Your task to perform on an android device: toggle javascript in the chrome app Image 0: 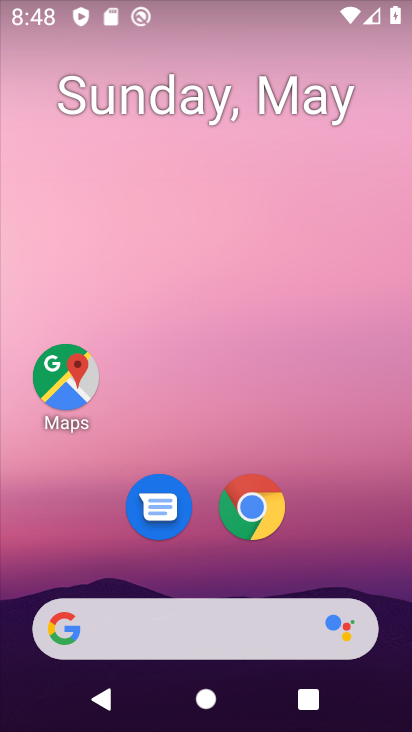
Step 0: click (292, 514)
Your task to perform on an android device: toggle javascript in the chrome app Image 1: 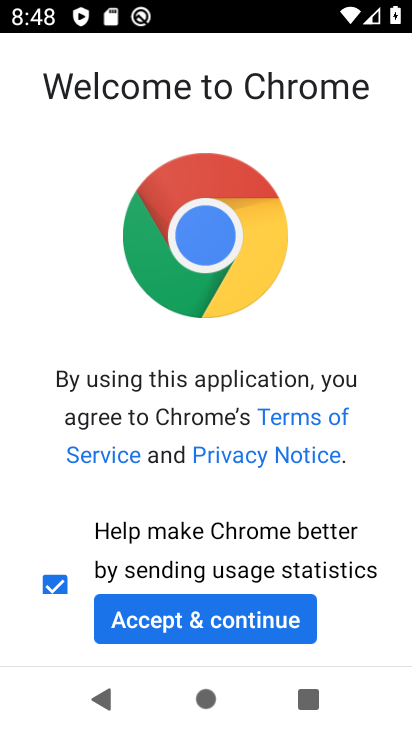
Step 1: click (229, 630)
Your task to perform on an android device: toggle javascript in the chrome app Image 2: 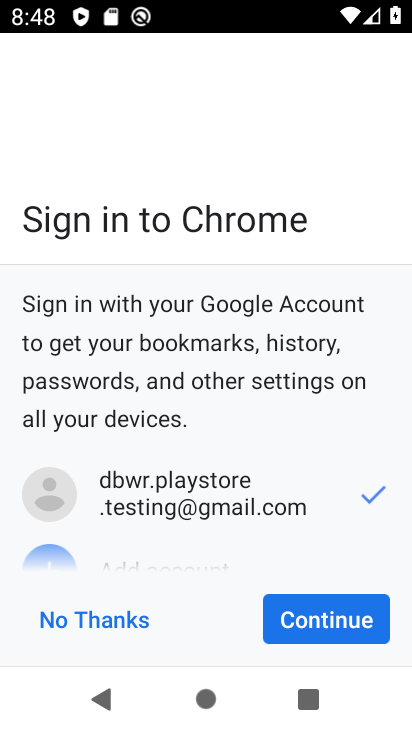
Step 2: click (329, 621)
Your task to perform on an android device: toggle javascript in the chrome app Image 3: 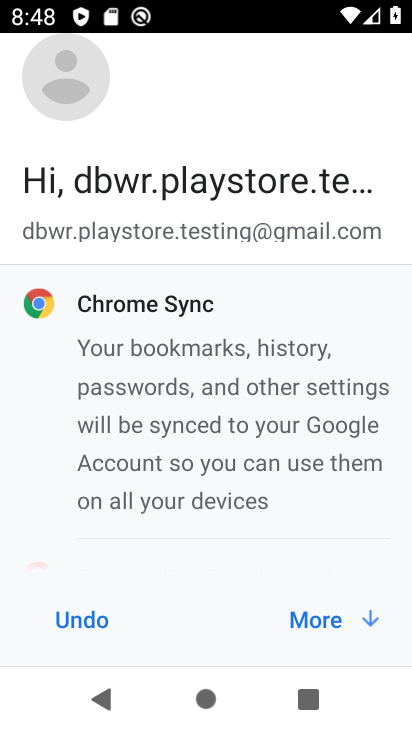
Step 3: click (331, 620)
Your task to perform on an android device: toggle javascript in the chrome app Image 4: 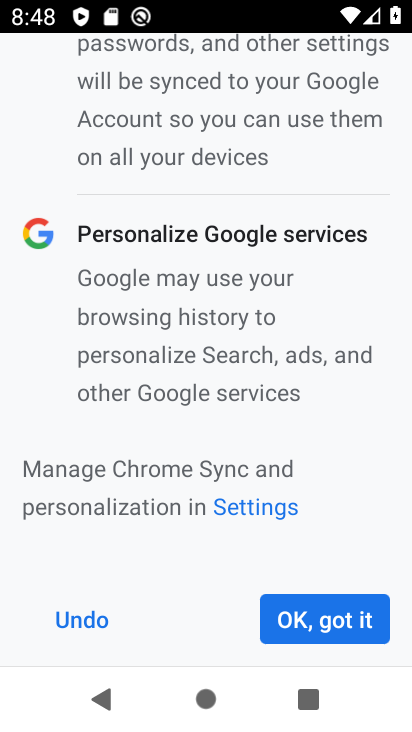
Step 4: click (331, 620)
Your task to perform on an android device: toggle javascript in the chrome app Image 5: 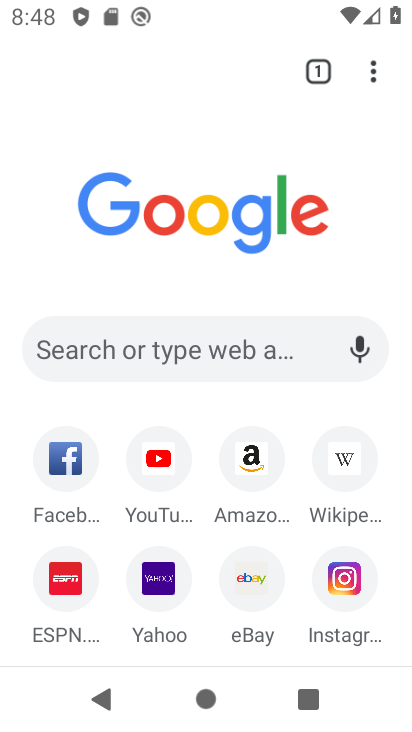
Step 5: click (377, 73)
Your task to perform on an android device: toggle javascript in the chrome app Image 6: 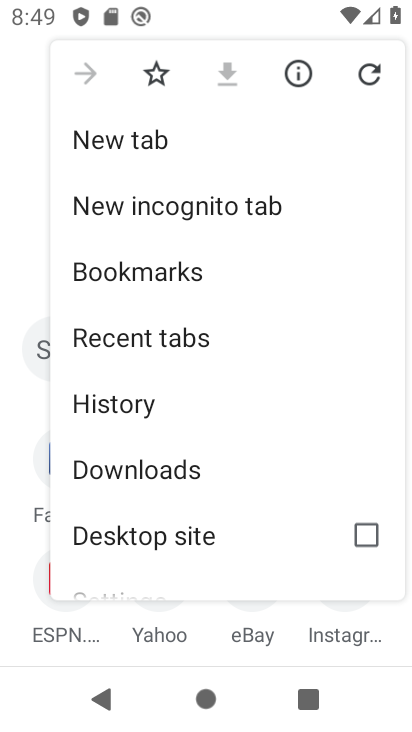
Step 6: drag from (175, 537) to (203, 153)
Your task to perform on an android device: toggle javascript in the chrome app Image 7: 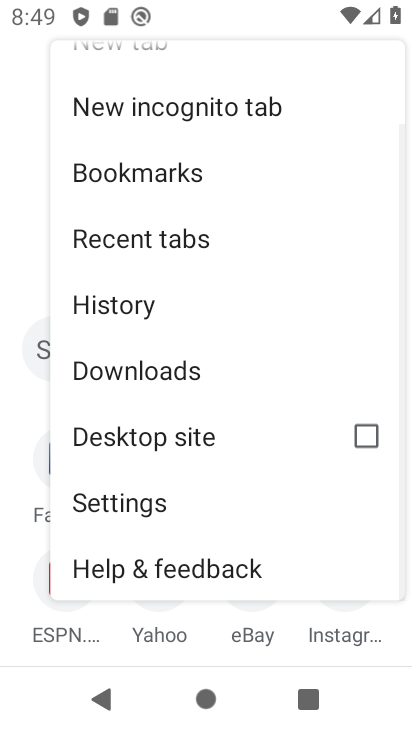
Step 7: click (139, 516)
Your task to perform on an android device: toggle javascript in the chrome app Image 8: 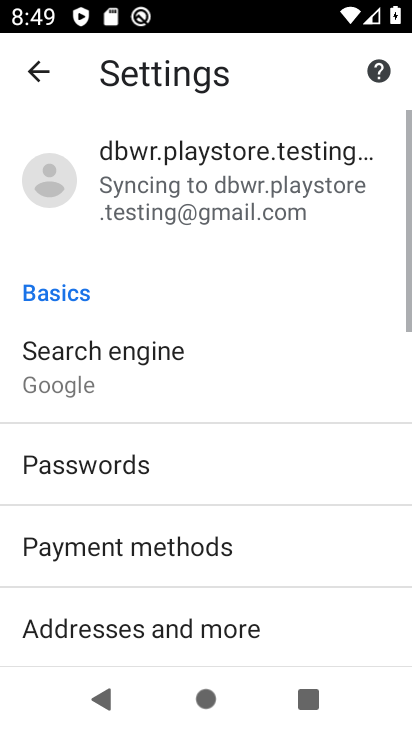
Step 8: drag from (136, 560) to (188, 153)
Your task to perform on an android device: toggle javascript in the chrome app Image 9: 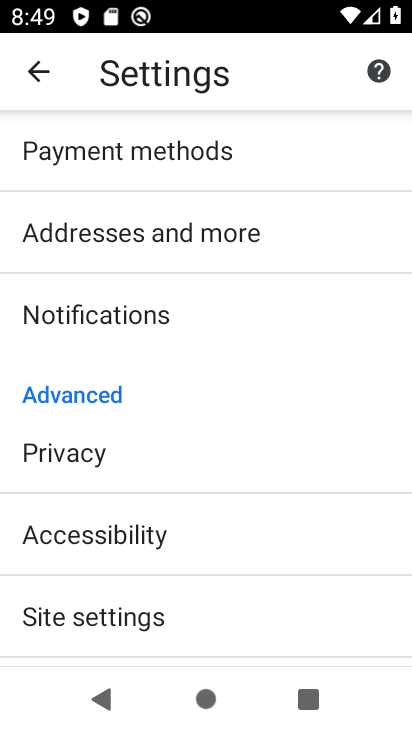
Step 9: drag from (142, 554) to (178, 229)
Your task to perform on an android device: toggle javascript in the chrome app Image 10: 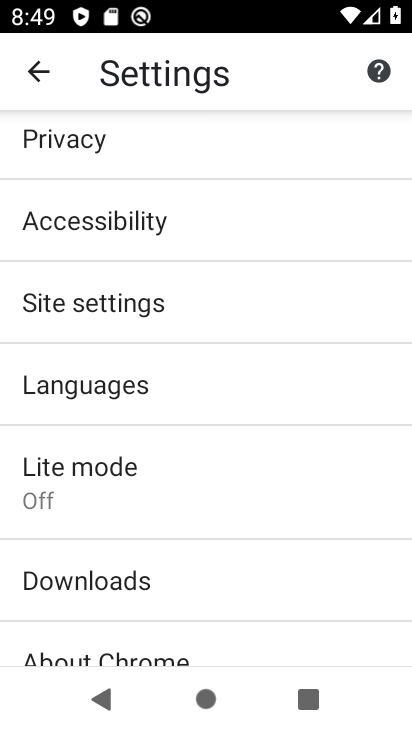
Step 10: click (108, 305)
Your task to perform on an android device: toggle javascript in the chrome app Image 11: 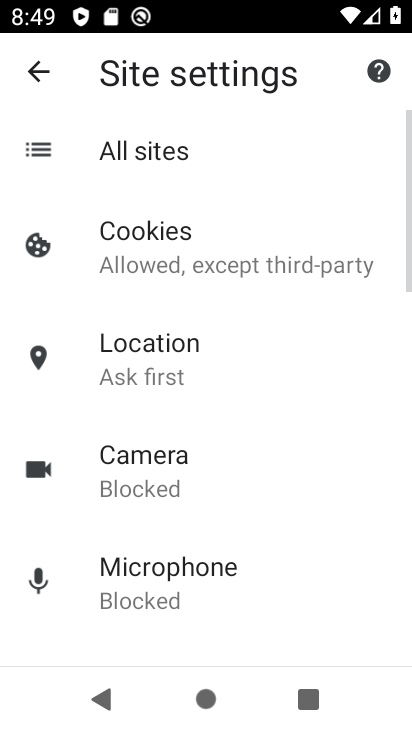
Step 11: drag from (183, 510) to (216, 250)
Your task to perform on an android device: toggle javascript in the chrome app Image 12: 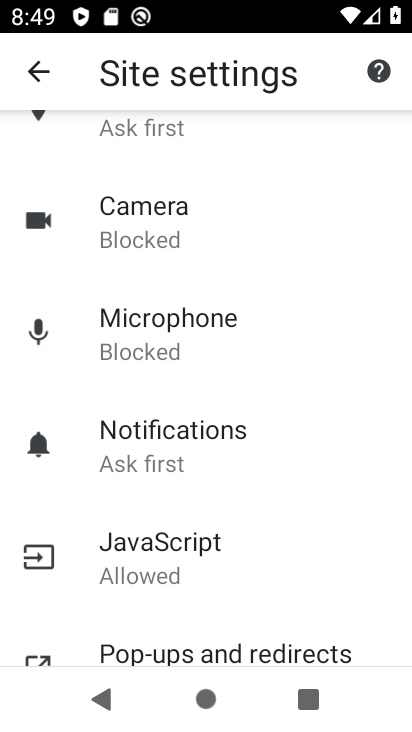
Step 12: click (172, 549)
Your task to perform on an android device: toggle javascript in the chrome app Image 13: 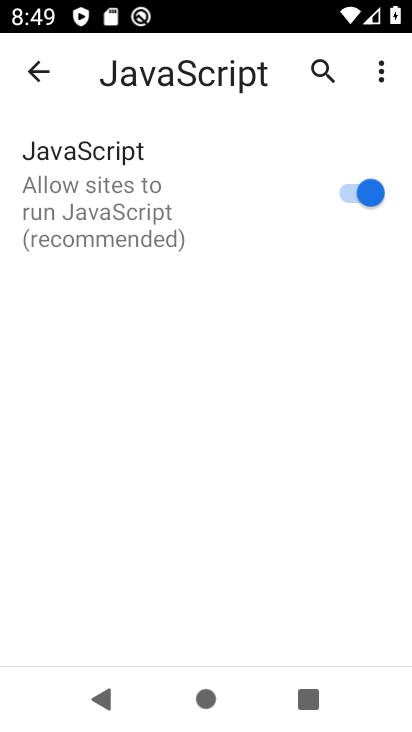
Step 13: click (344, 193)
Your task to perform on an android device: toggle javascript in the chrome app Image 14: 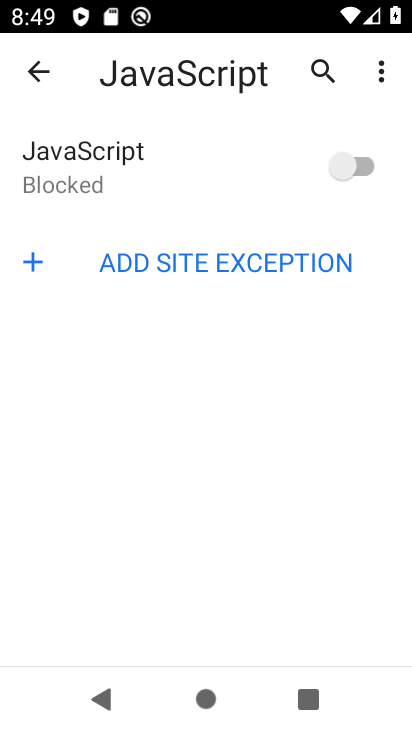
Step 14: task complete